Your task to perform on an android device: toggle data saver in the chrome app Image 0: 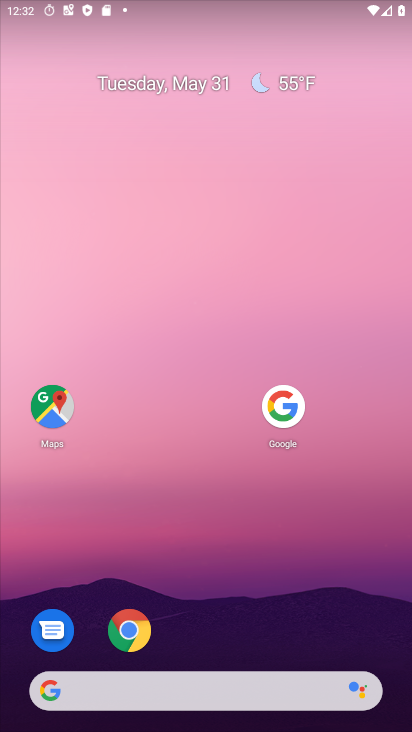
Step 0: click (141, 634)
Your task to perform on an android device: toggle data saver in the chrome app Image 1: 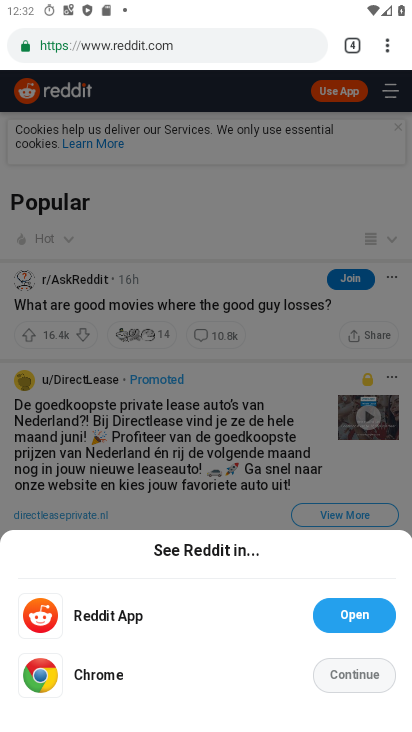
Step 1: drag from (392, 44) to (233, 599)
Your task to perform on an android device: toggle data saver in the chrome app Image 2: 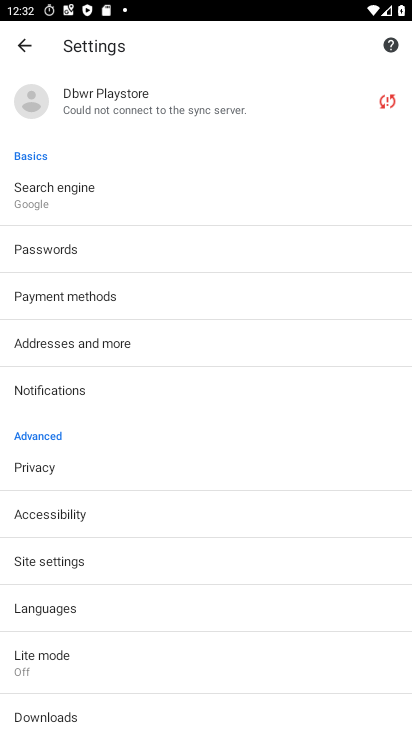
Step 2: click (30, 662)
Your task to perform on an android device: toggle data saver in the chrome app Image 3: 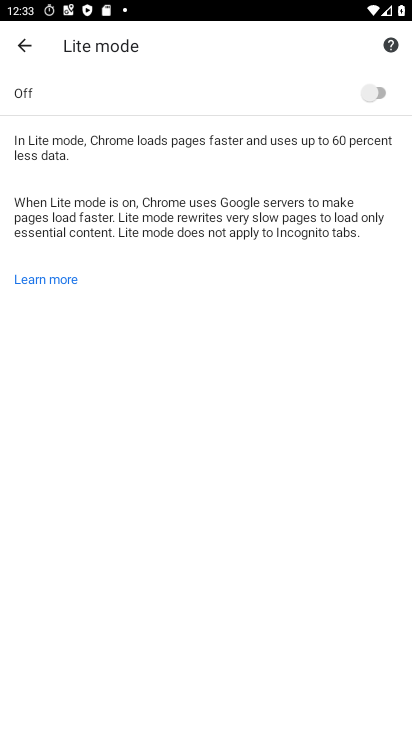
Step 3: click (384, 94)
Your task to perform on an android device: toggle data saver in the chrome app Image 4: 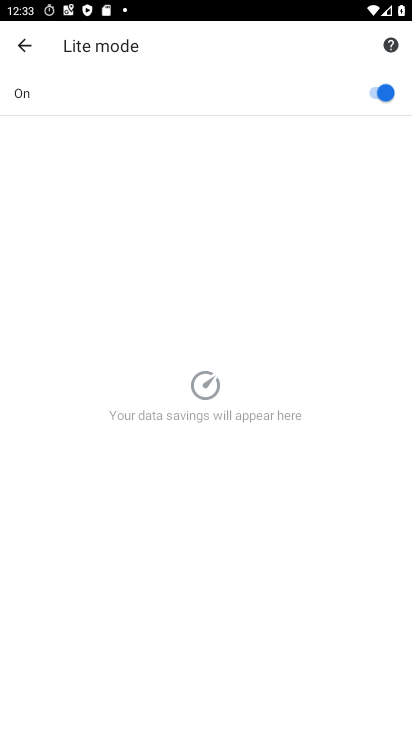
Step 4: task complete